Your task to perform on an android device: Go to Google Image 0: 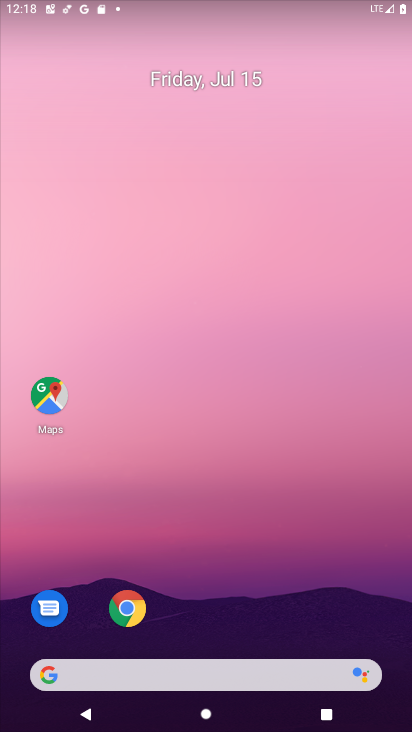
Step 0: click (48, 672)
Your task to perform on an android device: Go to Google Image 1: 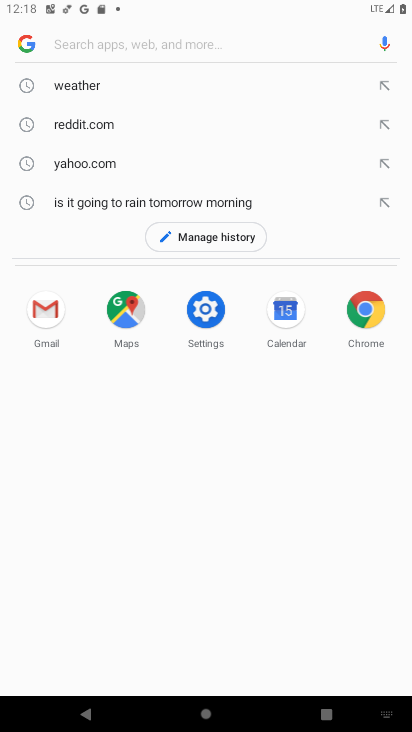
Step 1: click (28, 48)
Your task to perform on an android device: Go to Google Image 2: 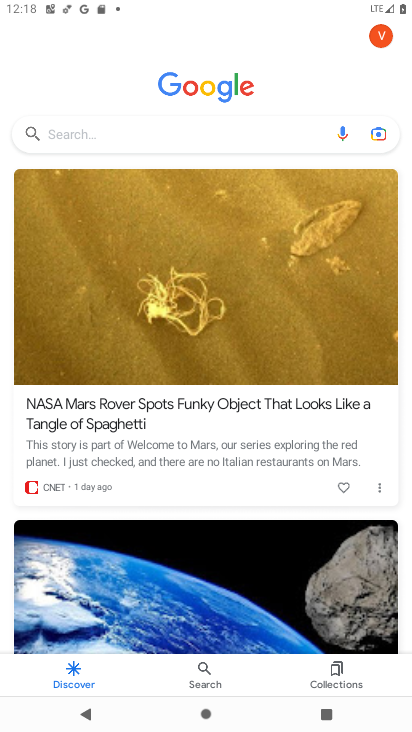
Step 2: task complete